Your task to perform on an android device: open app "Yahoo Mail" (install if not already installed) Image 0: 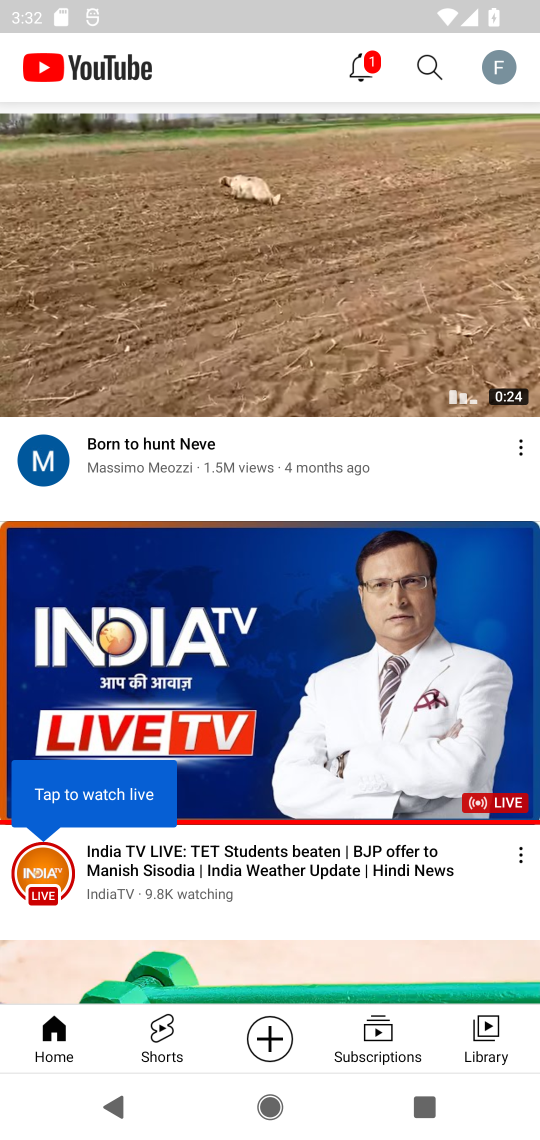
Step 0: press home button
Your task to perform on an android device: open app "Yahoo Mail" (install if not already installed) Image 1: 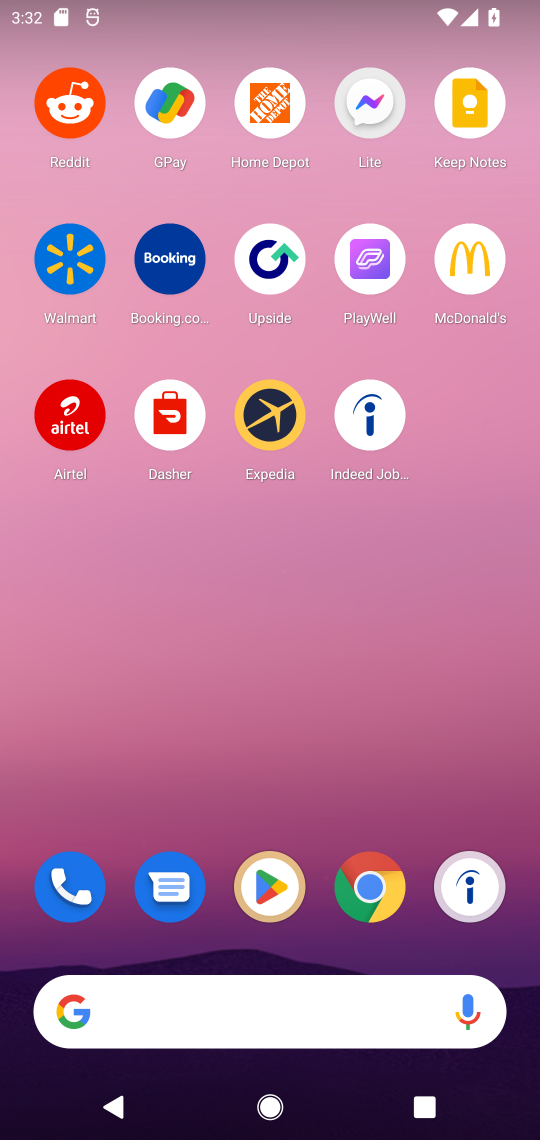
Step 1: click (277, 886)
Your task to perform on an android device: open app "Yahoo Mail" (install if not already installed) Image 2: 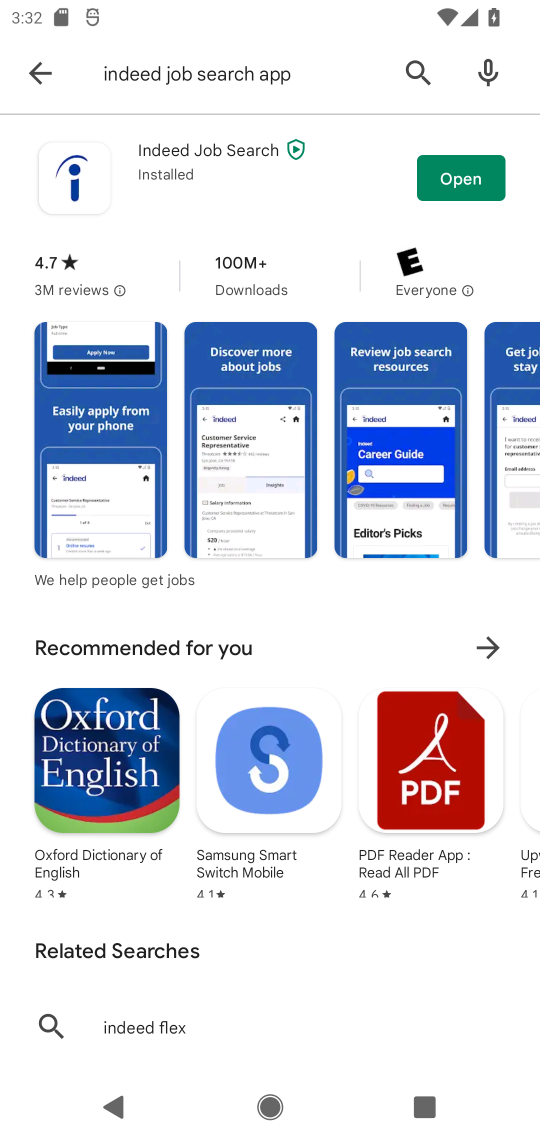
Step 2: click (45, 82)
Your task to perform on an android device: open app "Yahoo Mail" (install if not already installed) Image 3: 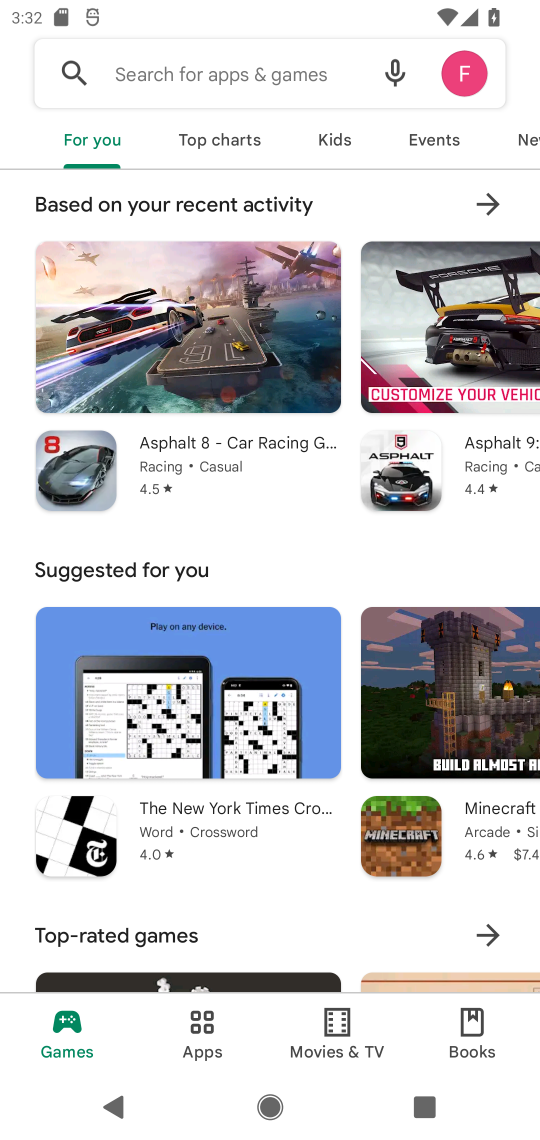
Step 3: click (238, 68)
Your task to perform on an android device: open app "Yahoo Mail" (install if not already installed) Image 4: 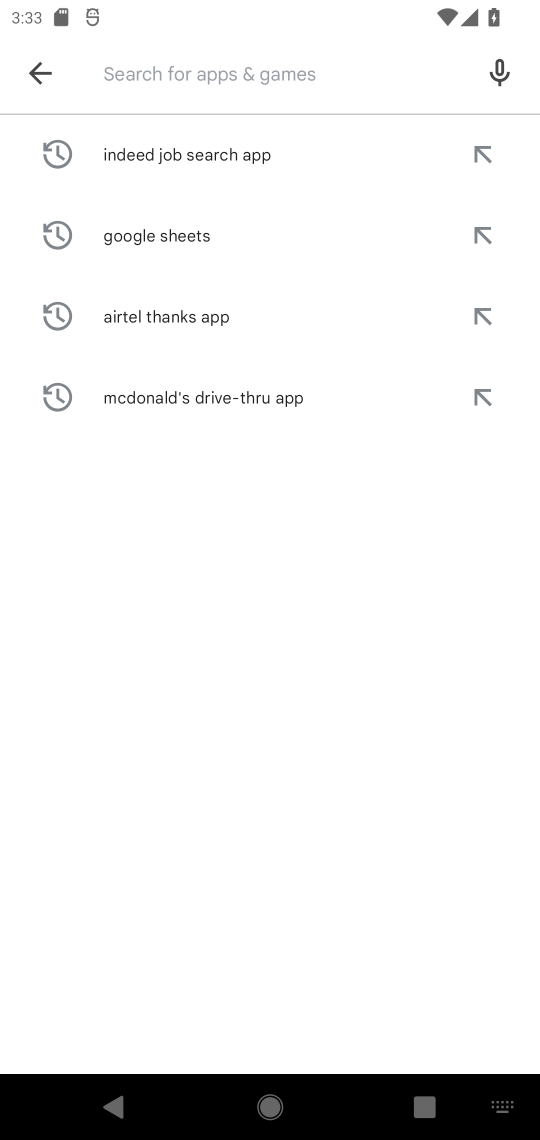
Step 4: type "Yahoo Mail"
Your task to perform on an android device: open app "Yahoo Mail" (install if not already installed) Image 5: 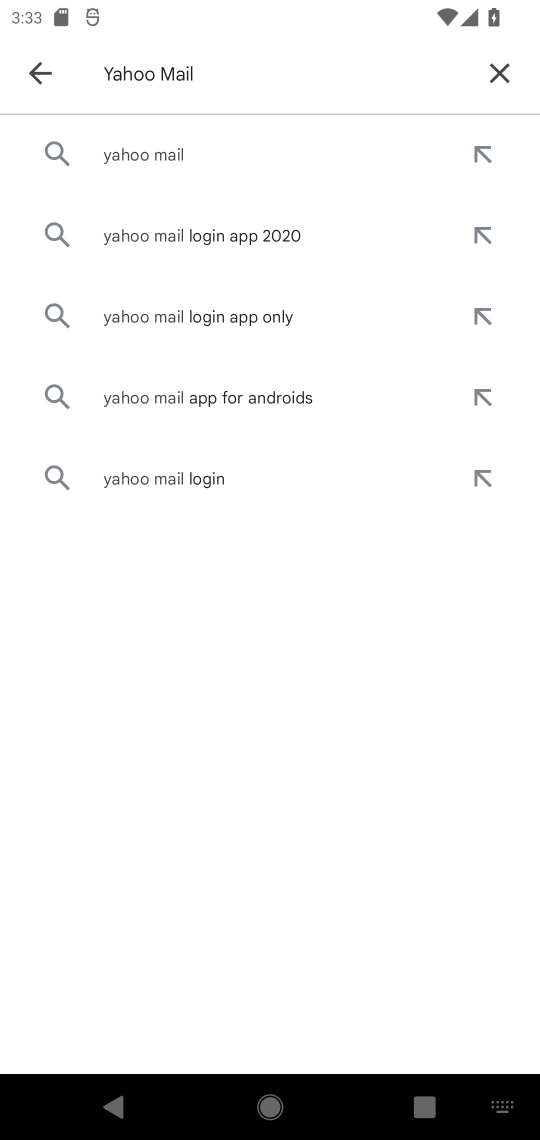
Step 5: click (149, 158)
Your task to perform on an android device: open app "Yahoo Mail" (install if not already installed) Image 6: 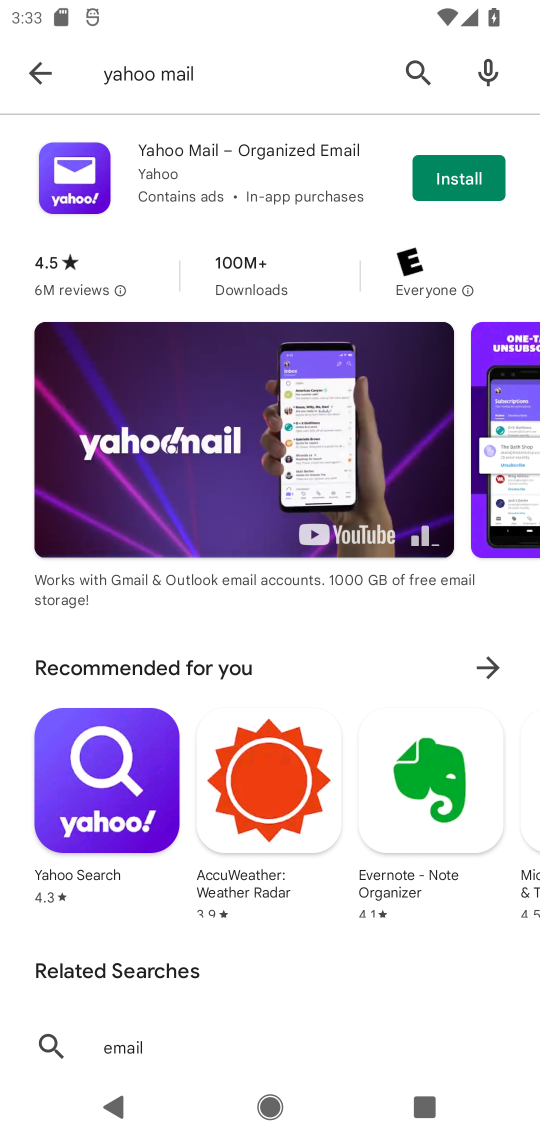
Step 6: click (448, 176)
Your task to perform on an android device: open app "Yahoo Mail" (install if not already installed) Image 7: 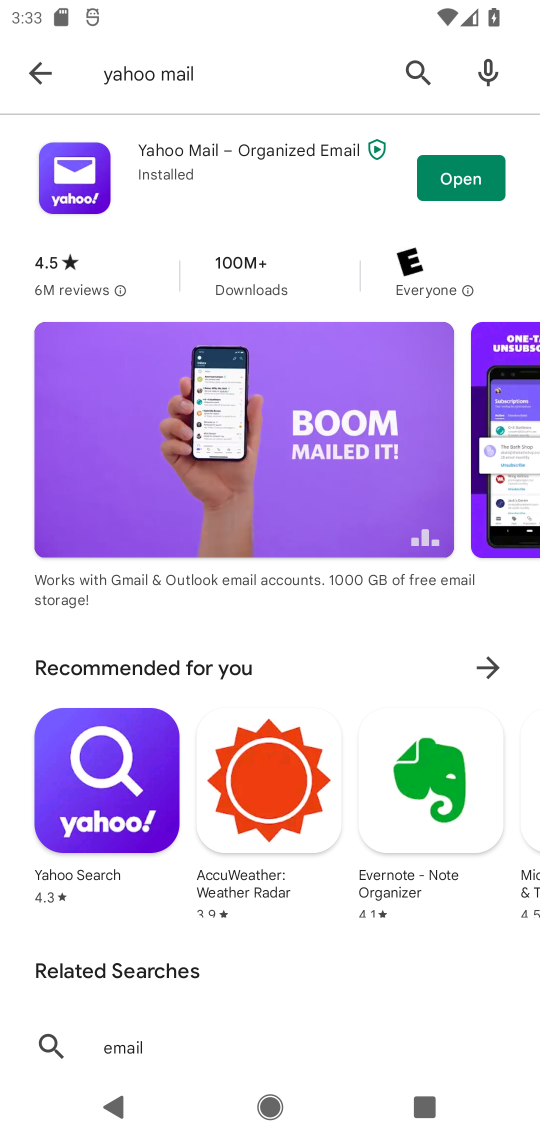
Step 7: click (462, 177)
Your task to perform on an android device: open app "Yahoo Mail" (install if not already installed) Image 8: 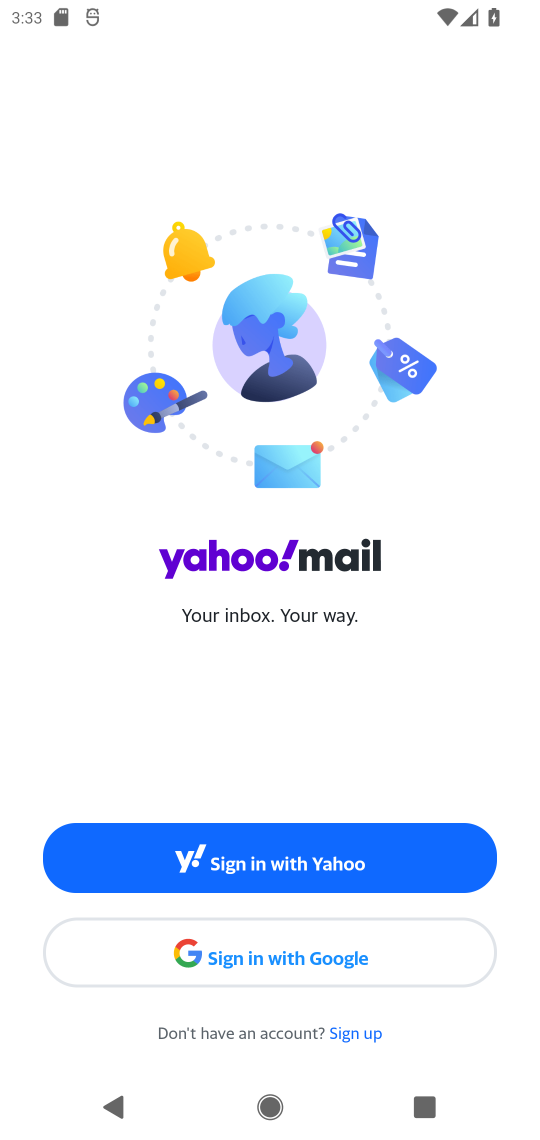
Step 8: task complete